Your task to perform on an android device: turn off notifications settings in the gmail app Image 0: 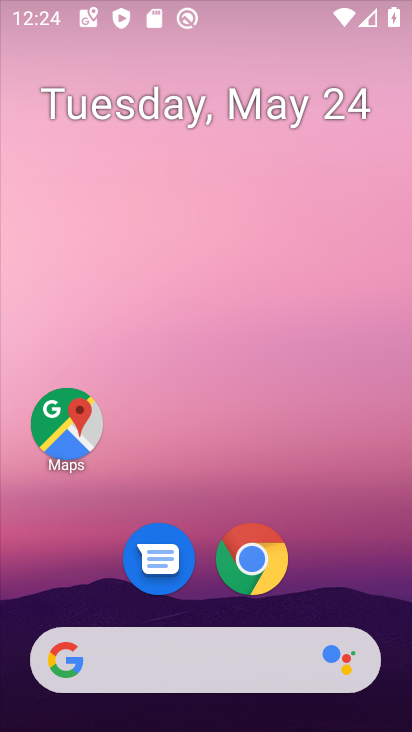
Step 0: click (266, 231)
Your task to perform on an android device: turn off notifications settings in the gmail app Image 1: 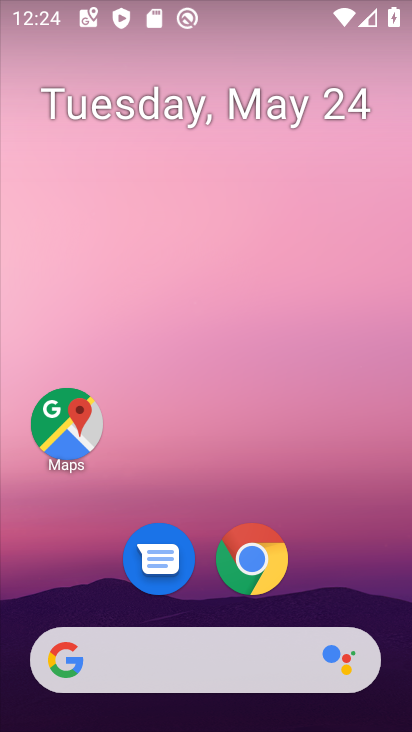
Step 1: drag from (341, 651) to (298, 349)
Your task to perform on an android device: turn off notifications settings in the gmail app Image 2: 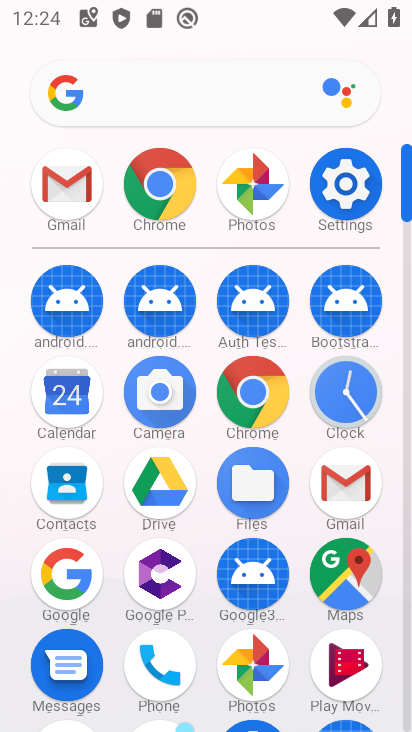
Step 2: click (343, 479)
Your task to perform on an android device: turn off notifications settings in the gmail app Image 3: 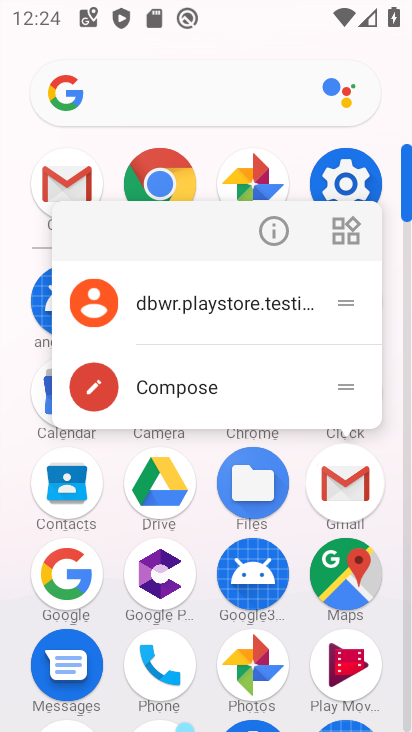
Step 3: click (342, 483)
Your task to perform on an android device: turn off notifications settings in the gmail app Image 4: 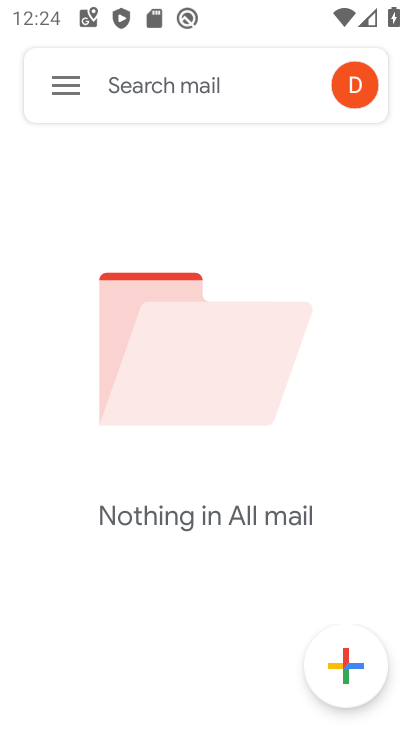
Step 4: click (82, 78)
Your task to perform on an android device: turn off notifications settings in the gmail app Image 5: 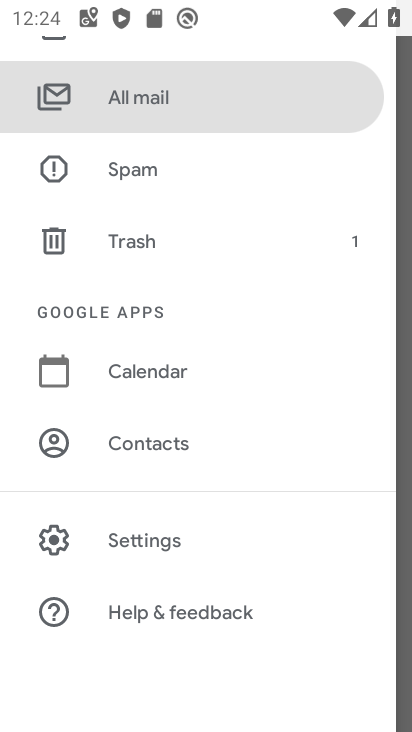
Step 5: click (151, 529)
Your task to perform on an android device: turn off notifications settings in the gmail app Image 6: 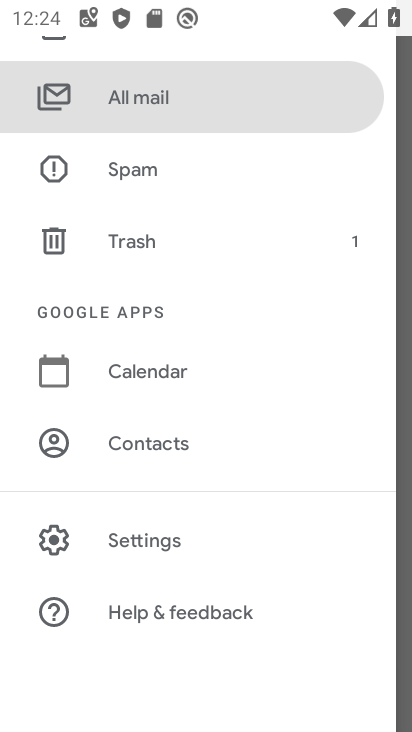
Step 6: click (147, 538)
Your task to perform on an android device: turn off notifications settings in the gmail app Image 7: 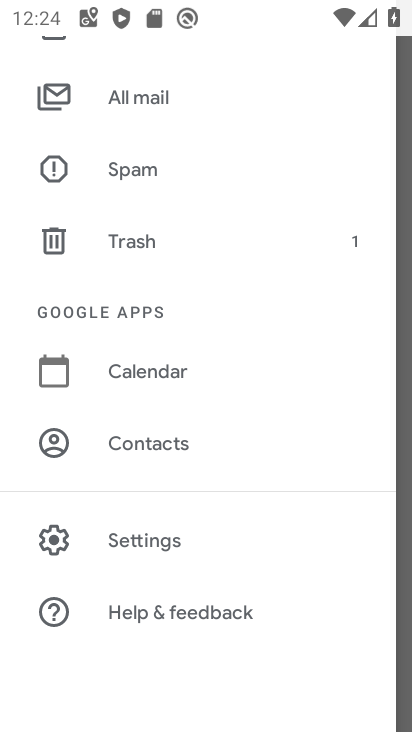
Step 7: click (147, 542)
Your task to perform on an android device: turn off notifications settings in the gmail app Image 8: 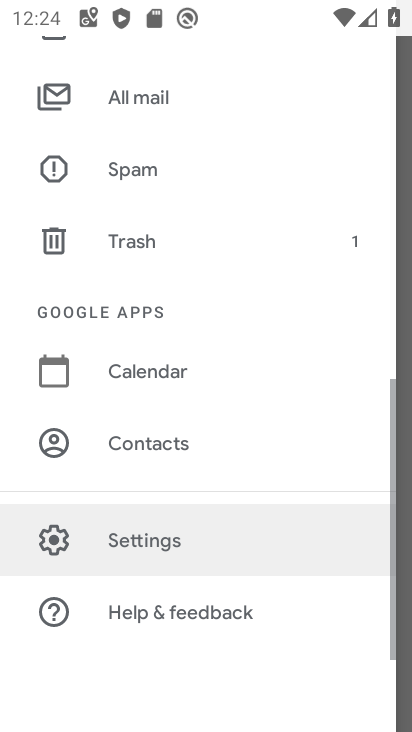
Step 8: click (147, 542)
Your task to perform on an android device: turn off notifications settings in the gmail app Image 9: 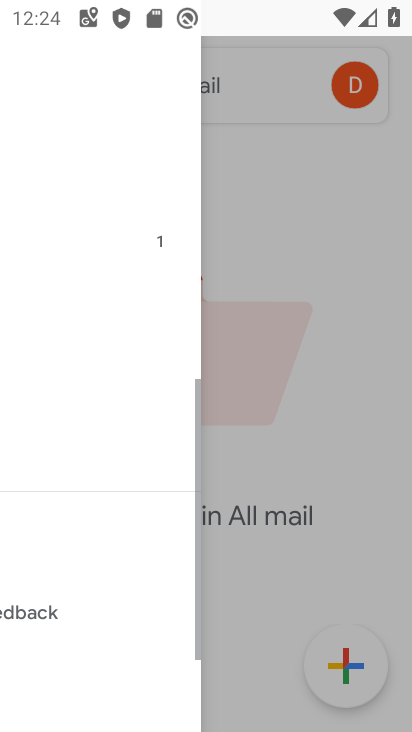
Step 9: click (147, 542)
Your task to perform on an android device: turn off notifications settings in the gmail app Image 10: 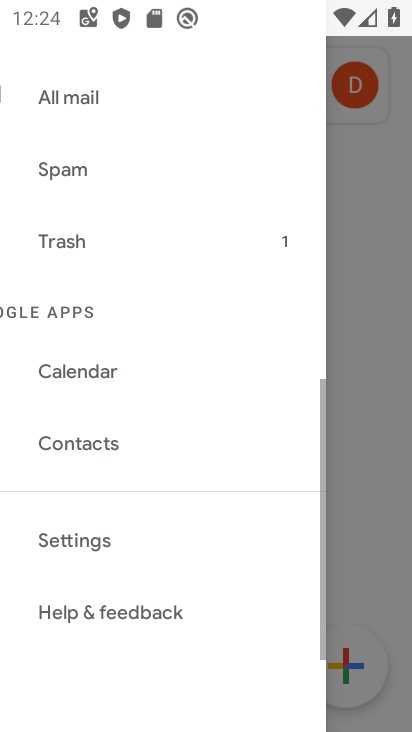
Step 10: click (147, 542)
Your task to perform on an android device: turn off notifications settings in the gmail app Image 11: 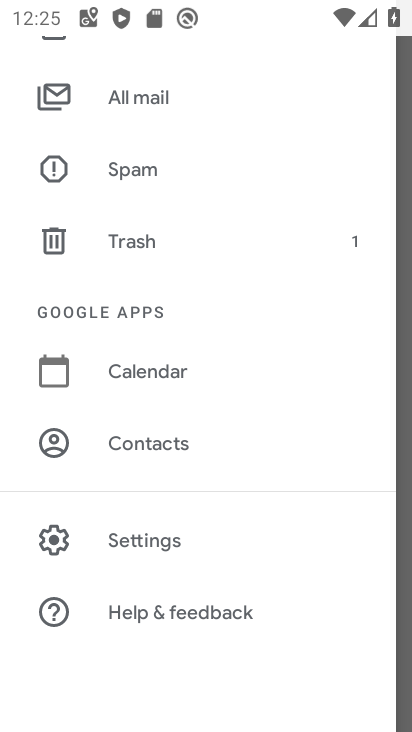
Step 11: click (137, 528)
Your task to perform on an android device: turn off notifications settings in the gmail app Image 12: 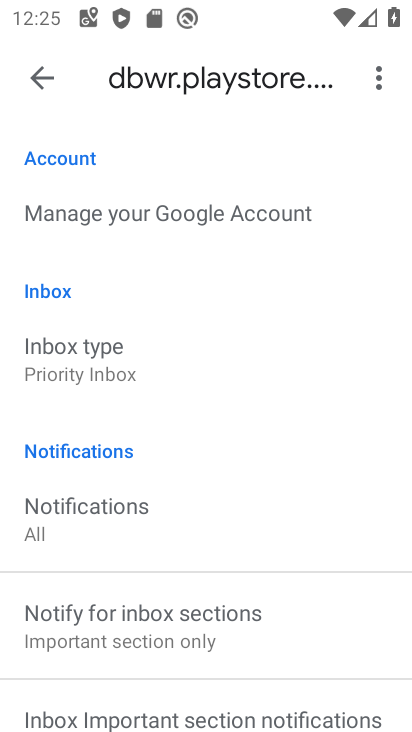
Step 12: click (69, 370)
Your task to perform on an android device: turn off notifications settings in the gmail app Image 13: 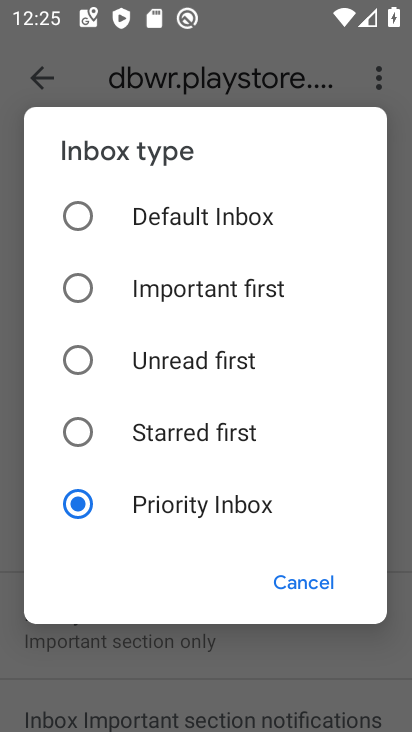
Step 13: click (289, 580)
Your task to perform on an android device: turn off notifications settings in the gmail app Image 14: 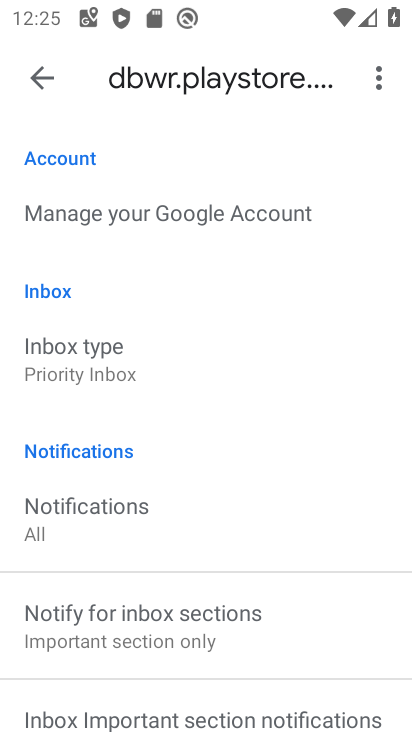
Step 14: click (76, 500)
Your task to perform on an android device: turn off notifications settings in the gmail app Image 15: 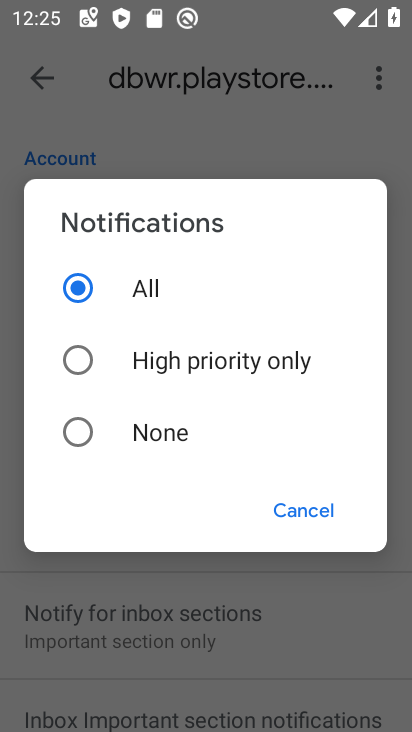
Step 15: click (285, 506)
Your task to perform on an android device: turn off notifications settings in the gmail app Image 16: 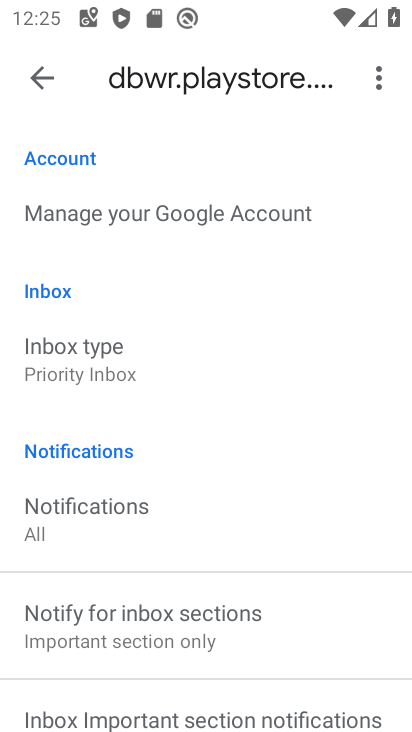
Step 16: click (67, 509)
Your task to perform on an android device: turn off notifications settings in the gmail app Image 17: 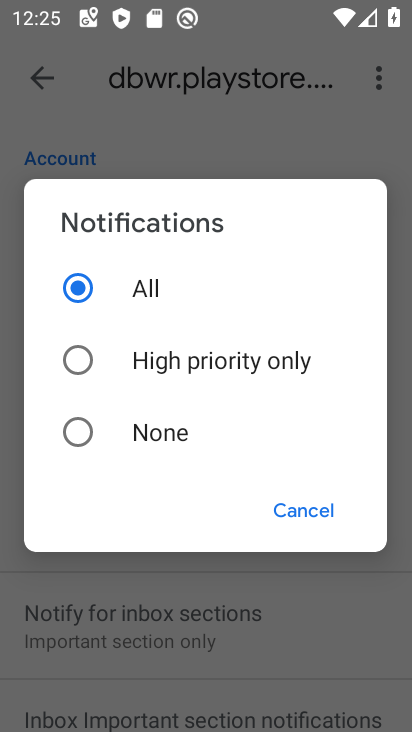
Step 17: click (70, 359)
Your task to perform on an android device: turn off notifications settings in the gmail app Image 18: 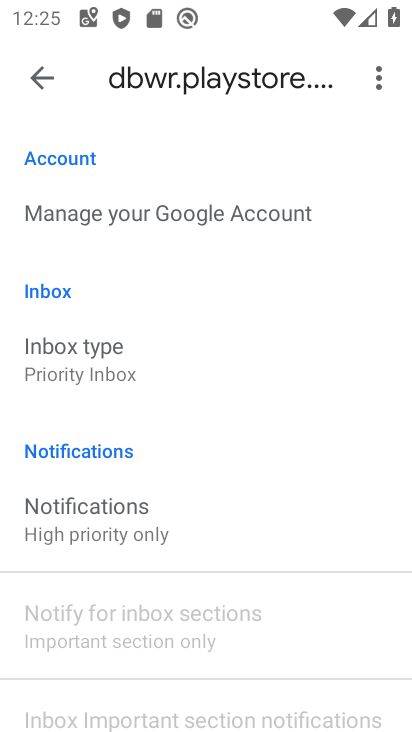
Step 18: task complete